Your task to perform on an android device: empty trash in the gmail app Image 0: 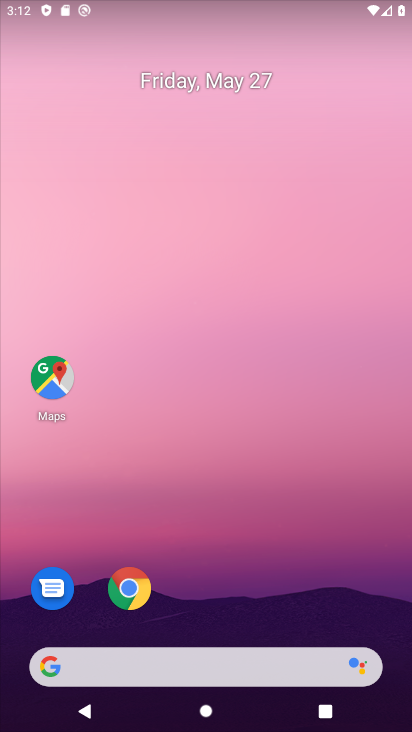
Step 0: drag from (249, 547) to (256, 245)
Your task to perform on an android device: empty trash in the gmail app Image 1: 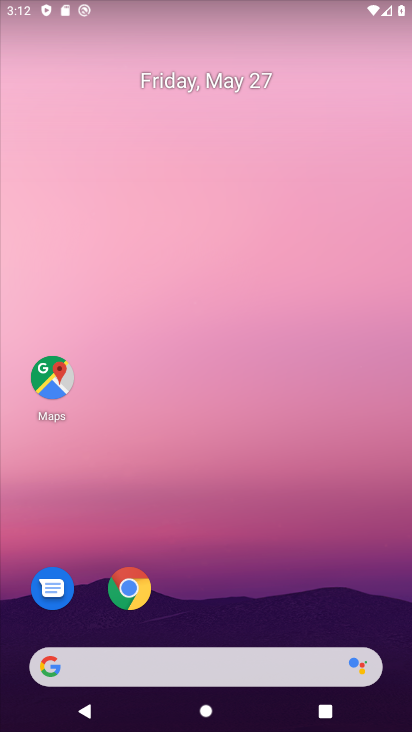
Step 1: drag from (303, 595) to (311, 158)
Your task to perform on an android device: empty trash in the gmail app Image 2: 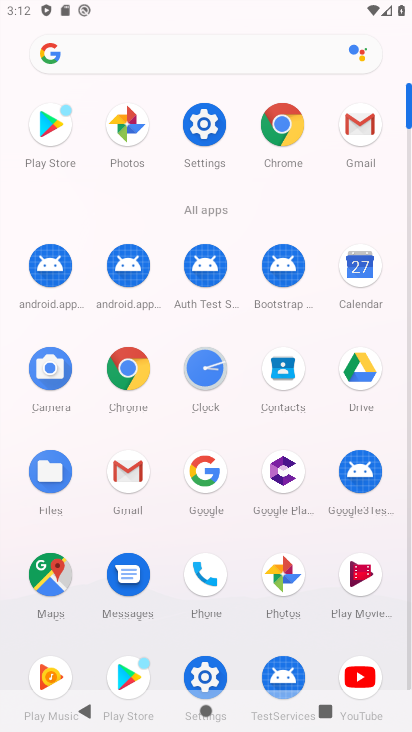
Step 2: click (137, 477)
Your task to perform on an android device: empty trash in the gmail app Image 3: 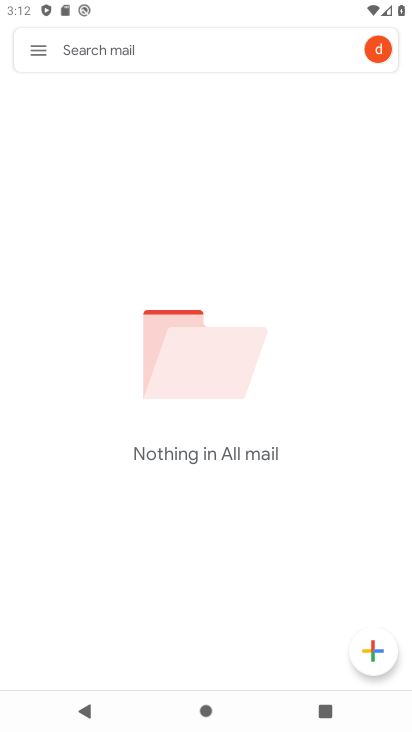
Step 3: click (44, 45)
Your task to perform on an android device: empty trash in the gmail app Image 4: 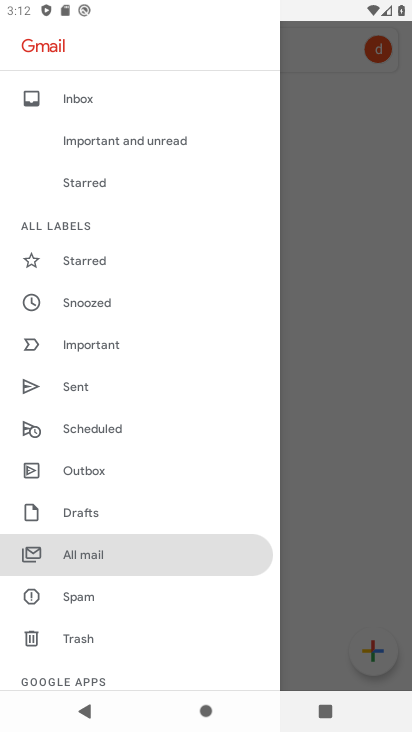
Step 4: drag from (151, 482) to (155, 328)
Your task to perform on an android device: empty trash in the gmail app Image 5: 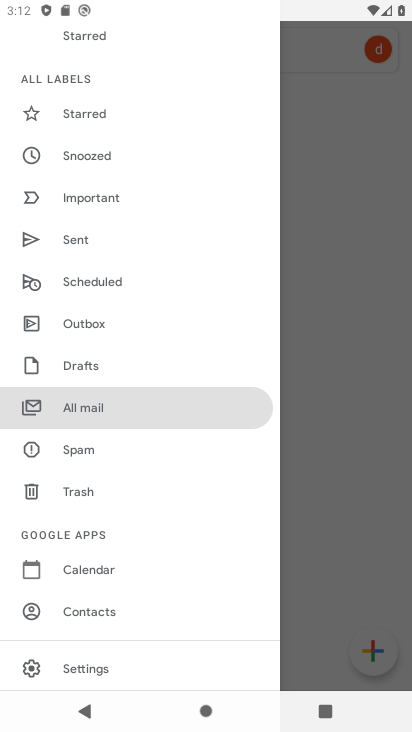
Step 5: click (116, 484)
Your task to perform on an android device: empty trash in the gmail app Image 6: 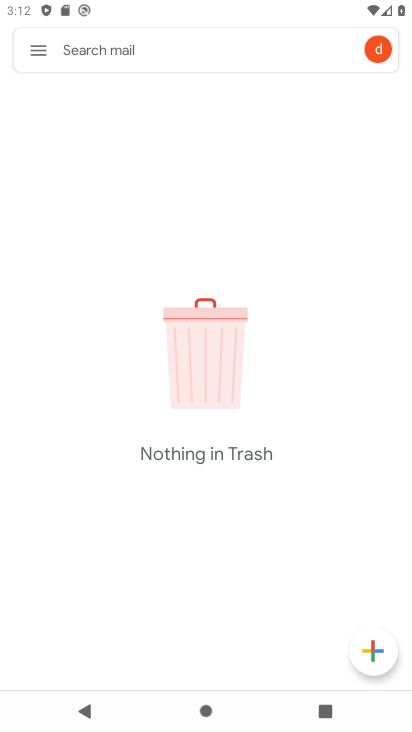
Step 6: task complete